Your task to perform on an android device: see creations saved in the google photos Image 0: 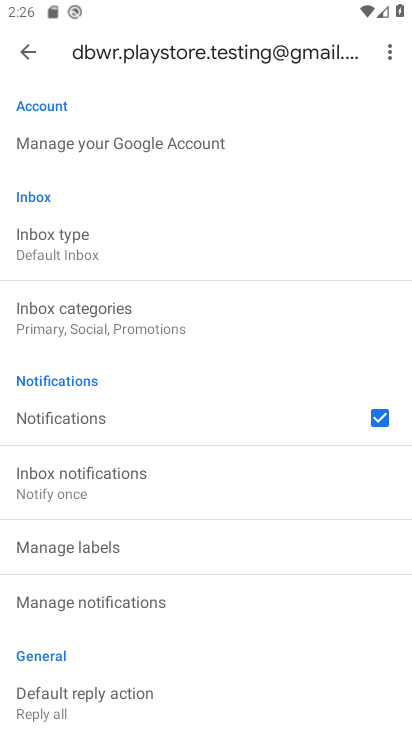
Step 0: press home button
Your task to perform on an android device: see creations saved in the google photos Image 1: 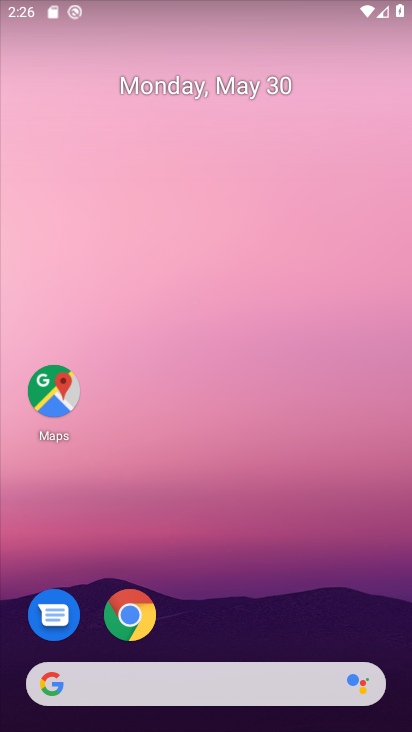
Step 1: drag from (237, 562) to (258, 16)
Your task to perform on an android device: see creations saved in the google photos Image 2: 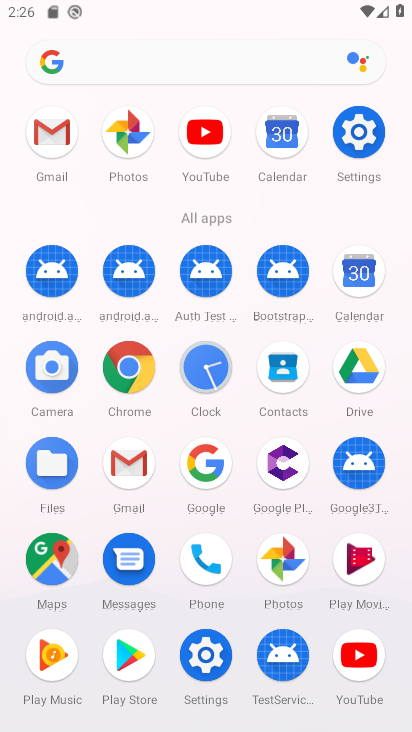
Step 2: click (132, 126)
Your task to perform on an android device: see creations saved in the google photos Image 3: 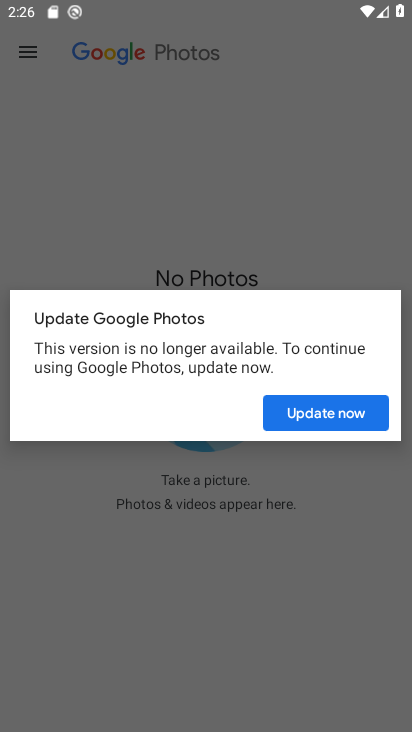
Step 3: click (336, 404)
Your task to perform on an android device: see creations saved in the google photos Image 4: 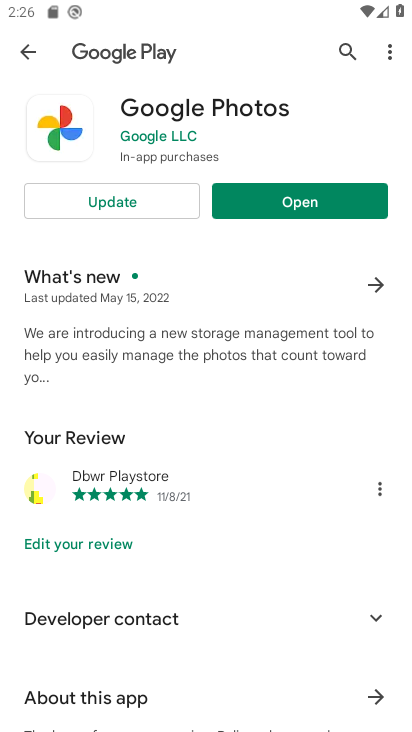
Step 4: click (302, 195)
Your task to perform on an android device: see creations saved in the google photos Image 5: 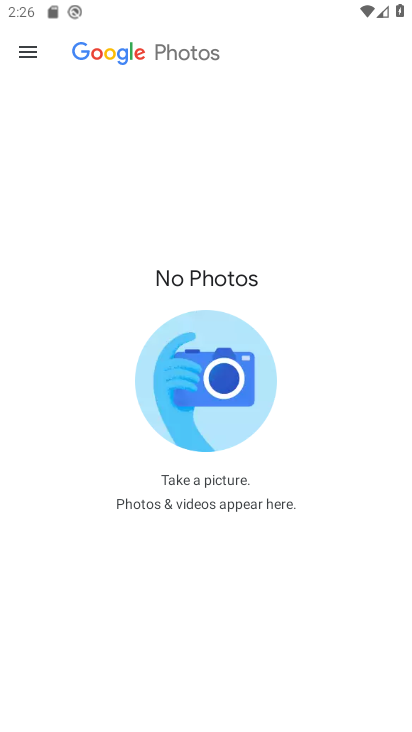
Step 5: press back button
Your task to perform on an android device: see creations saved in the google photos Image 6: 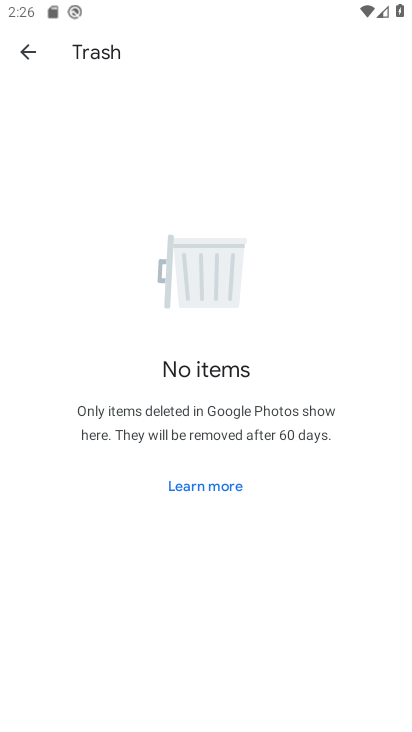
Step 6: press back button
Your task to perform on an android device: see creations saved in the google photos Image 7: 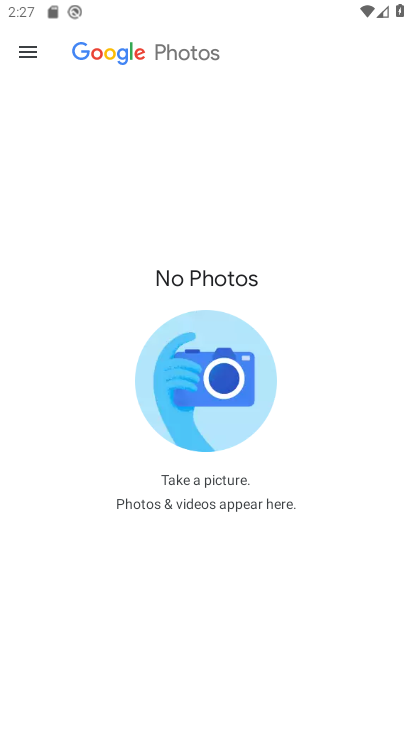
Step 7: press back button
Your task to perform on an android device: see creations saved in the google photos Image 8: 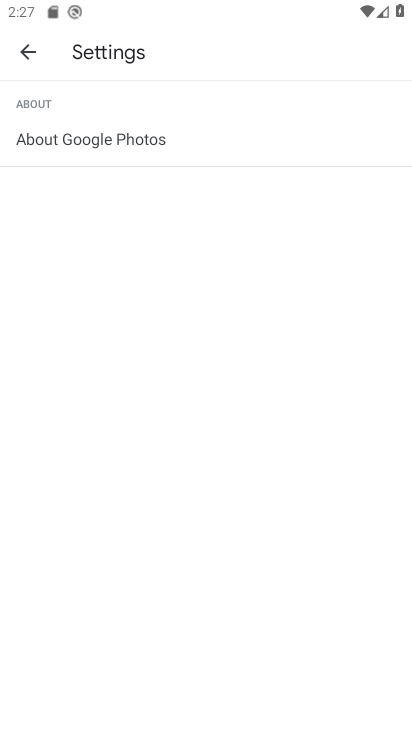
Step 8: press back button
Your task to perform on an android device: see creations saved in the google photos Image 9: 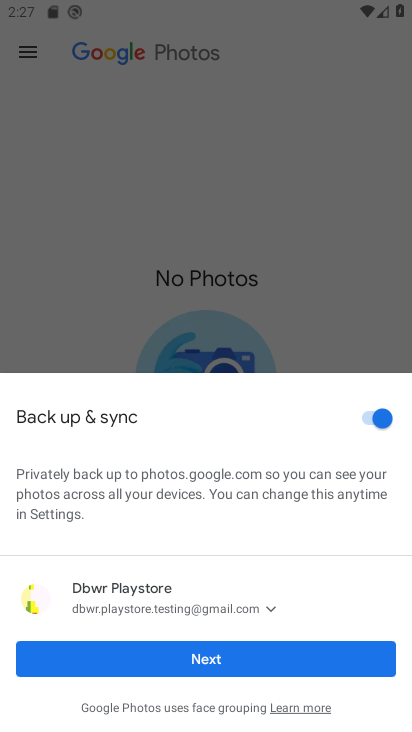
Step 9: click (352, 672)
Your task to perform on an android device: see creations saved in the google photos Image 10: 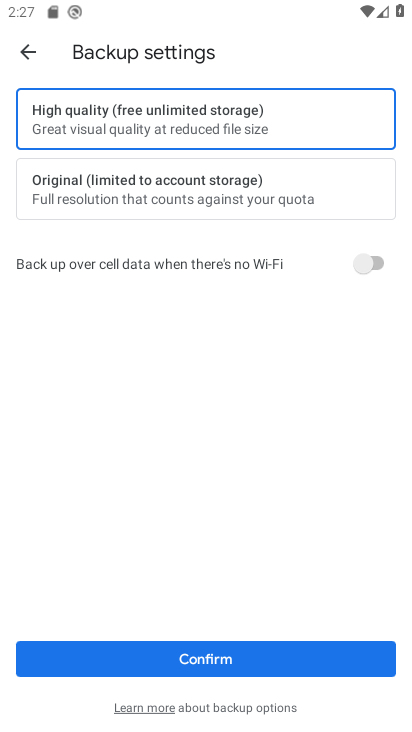
Step 10: click (354, 663)
Your task to perform on an android device: see creations saved in the google photos Image 11: 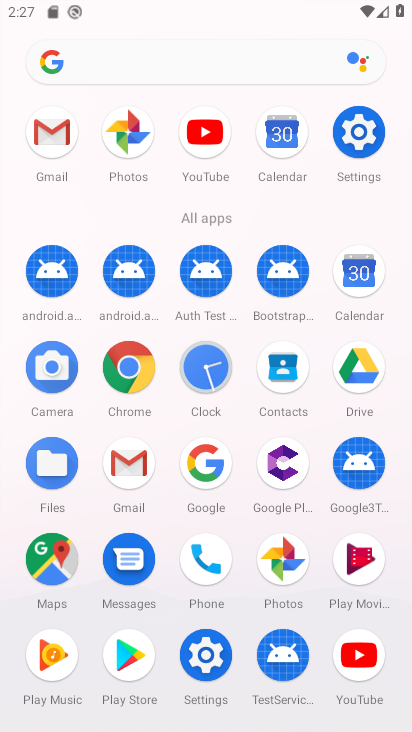
Step 11: click (135, 123)
Your task to perform on an android device: see creations saved in the google photos Image 12: 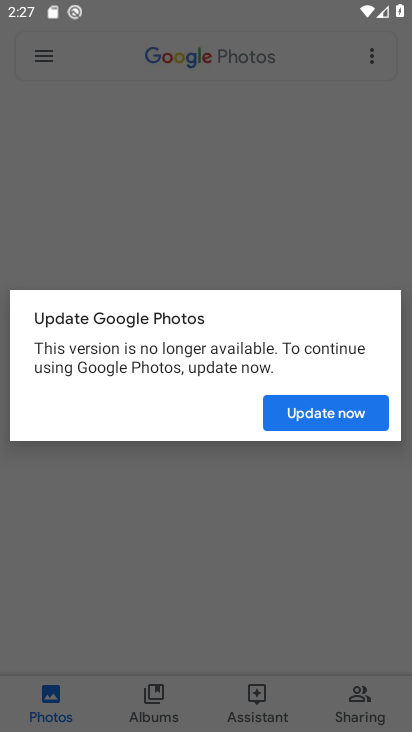
Step 12: click (336, 416)
Your task to perform on an android device: see creations saved in the google photos Image 13: 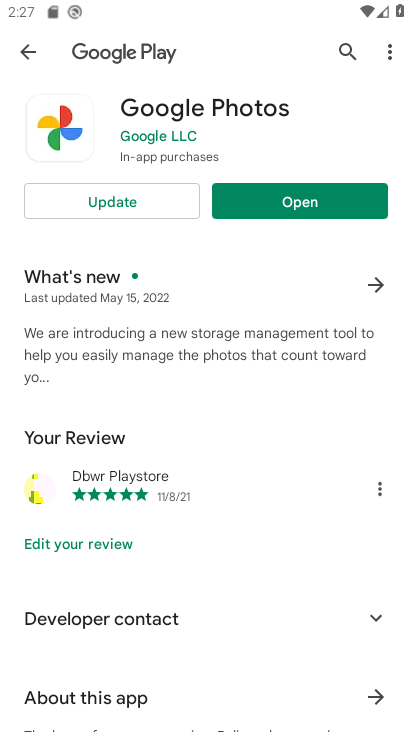
Step 13: click (256, 208)
Your task to perform on an android device: see creations saved in the google photos Image 14: 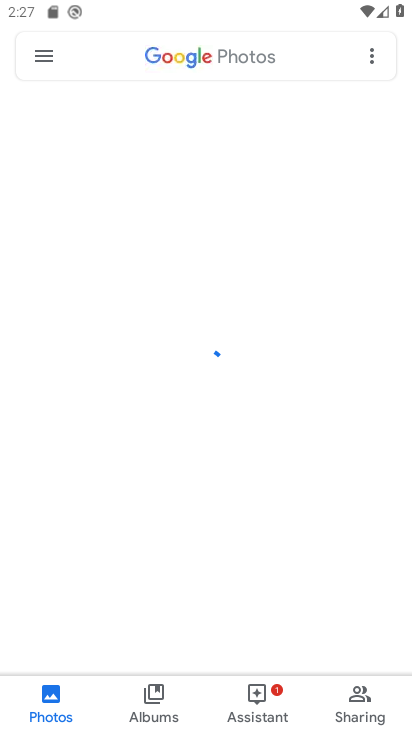
Step 14: click (260, 55)
Your task to perform on an android device: see creations saved in the google photos Image 15: 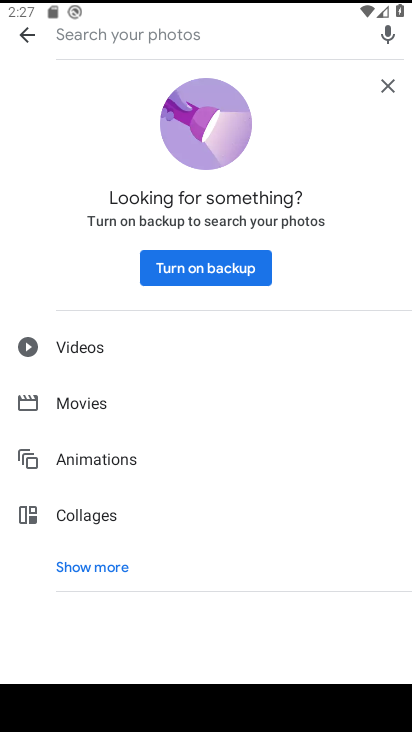
Step 15: click (220, 263)
Your task to perform on an android device: see creations saved in the google photos Image 16: 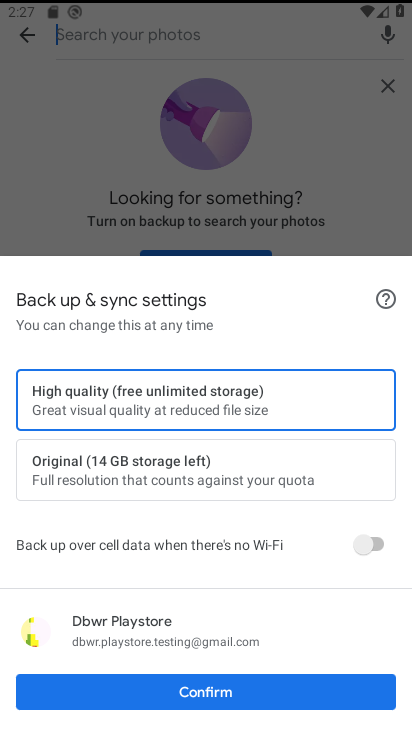
Step 16: click (102, 562)
Your task to perform on an android device: see creations saved in the google photos Image 17: 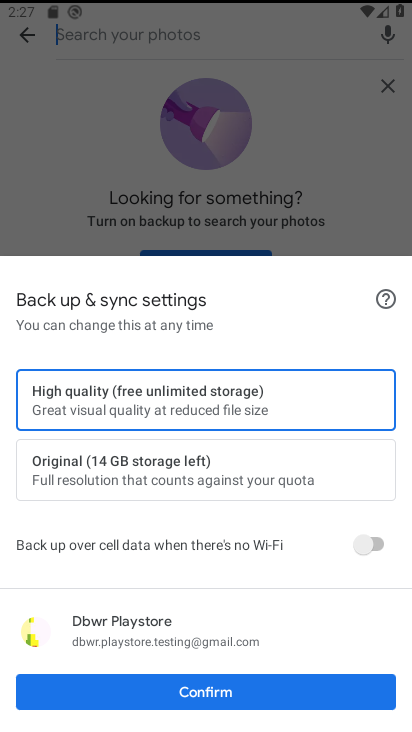
Step 17: click (207, 694)
Your task to perform on an android device: see creations saved in the google photos Image 18: 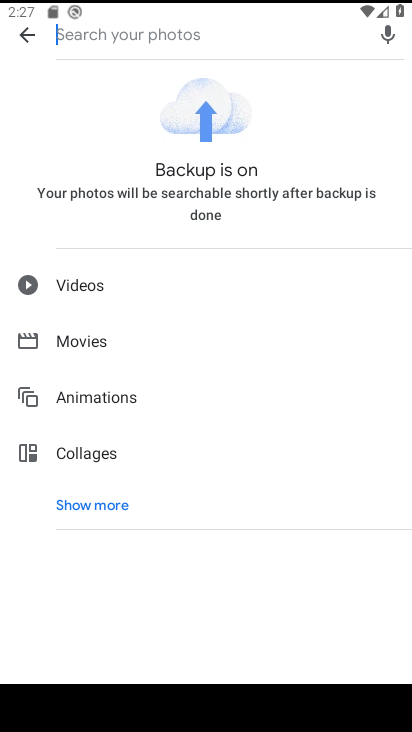
Step 18: click (107, 498)
Your task to perform on an android device: see creations saved in the google photos Image 19: 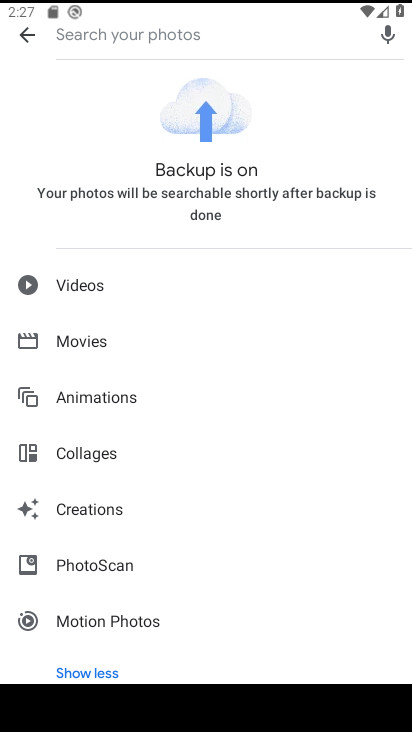
Step 19: click (98, 501)
Your task to perform on an android device: see creations saved in the google photos Image 20: 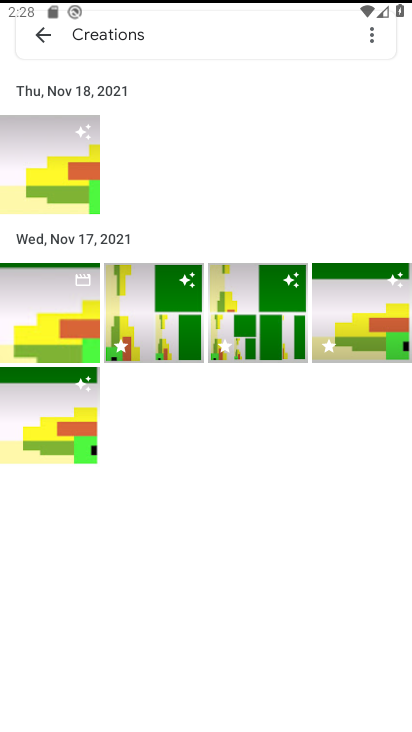
Step 20: task complete